Your task to perform on an android device: Is it going to rain today? Image 0: 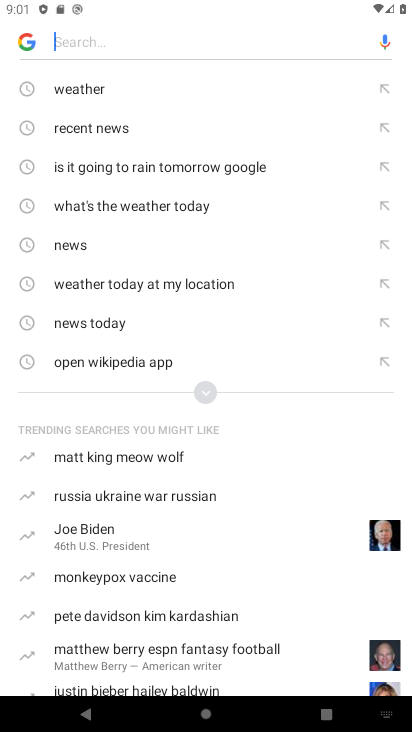
Step 0: click (79, 85)
Your task to perform on an android device: Is it going to rain today? Image 1: 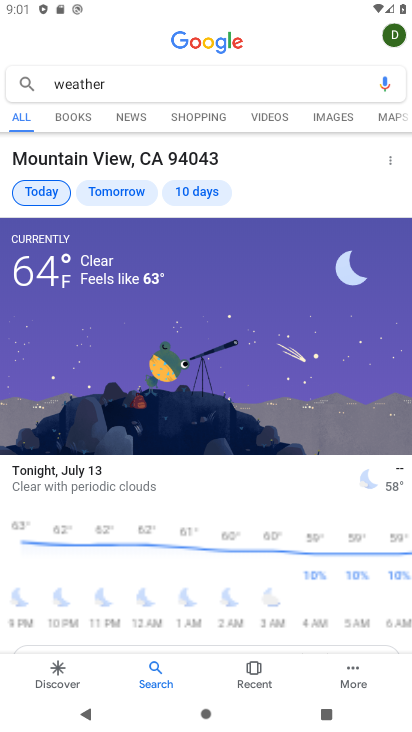
Step 1: task complete